Your task to perform on an android device: Open privacy settings Image 0: 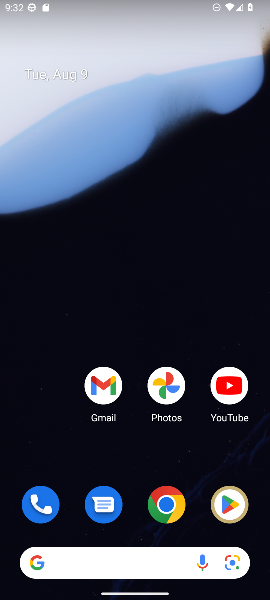
Step 0: press home button
Your task to perform on an android device: Open privacy settings Image 1: 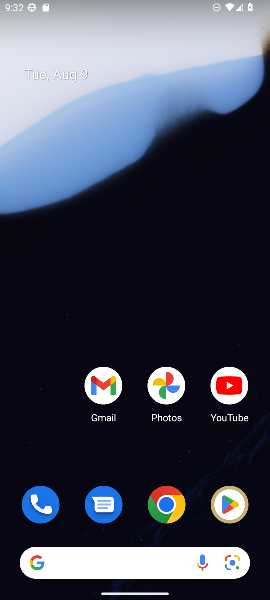
Step 1: drag from (135, 472) to (125, 109)
Your task to perform on an android device: Open privacy settings Image 2: 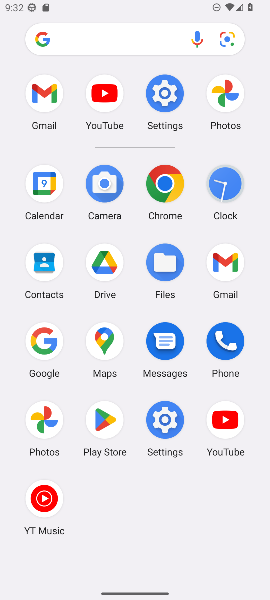
Step 2: click (164, 419)
Your task to perform on an android device: Open privacy settings Image 3: 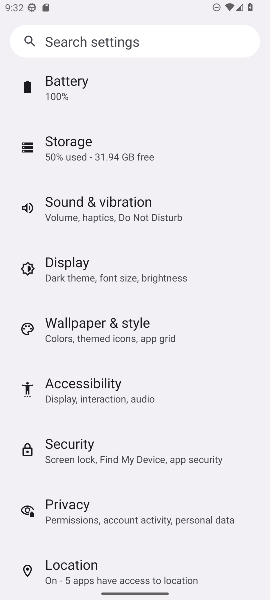
Step 3: click (75, 505)
Your task to perform on an android device: Open privacy settings Image 4: 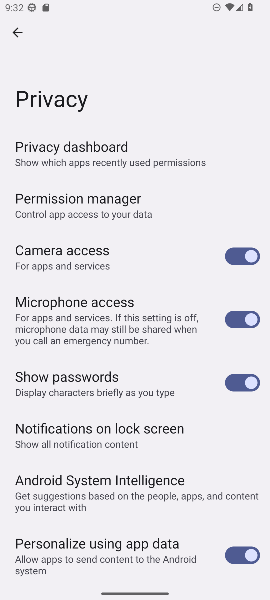
Step 4: task complete